Your task to perform on an android device: Add lenovo thinkpad to the cart on costco, then select checkout. Image 0: 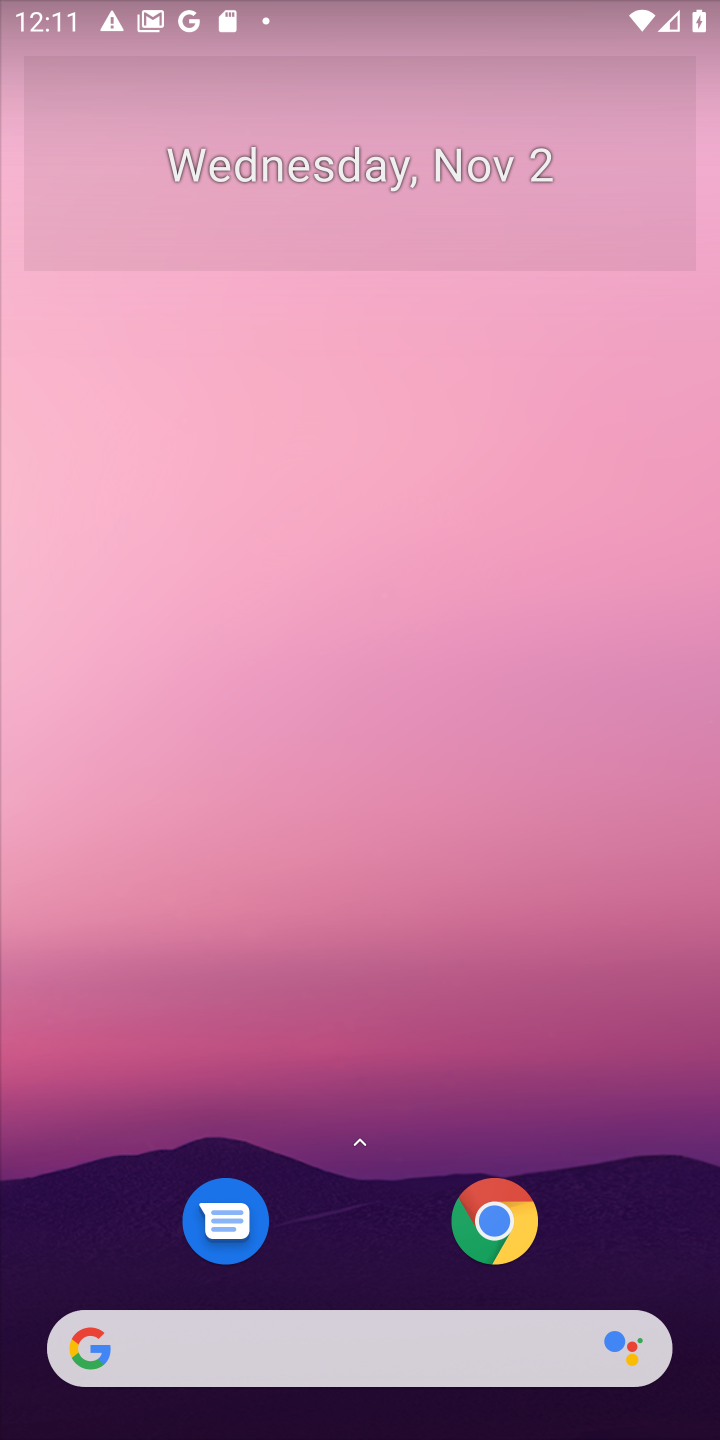
Step 0: click (285, 1332)
Your task to perform on an android device: Add lenovo thinkpad to the cart on costco, then select checkout. Image 1: 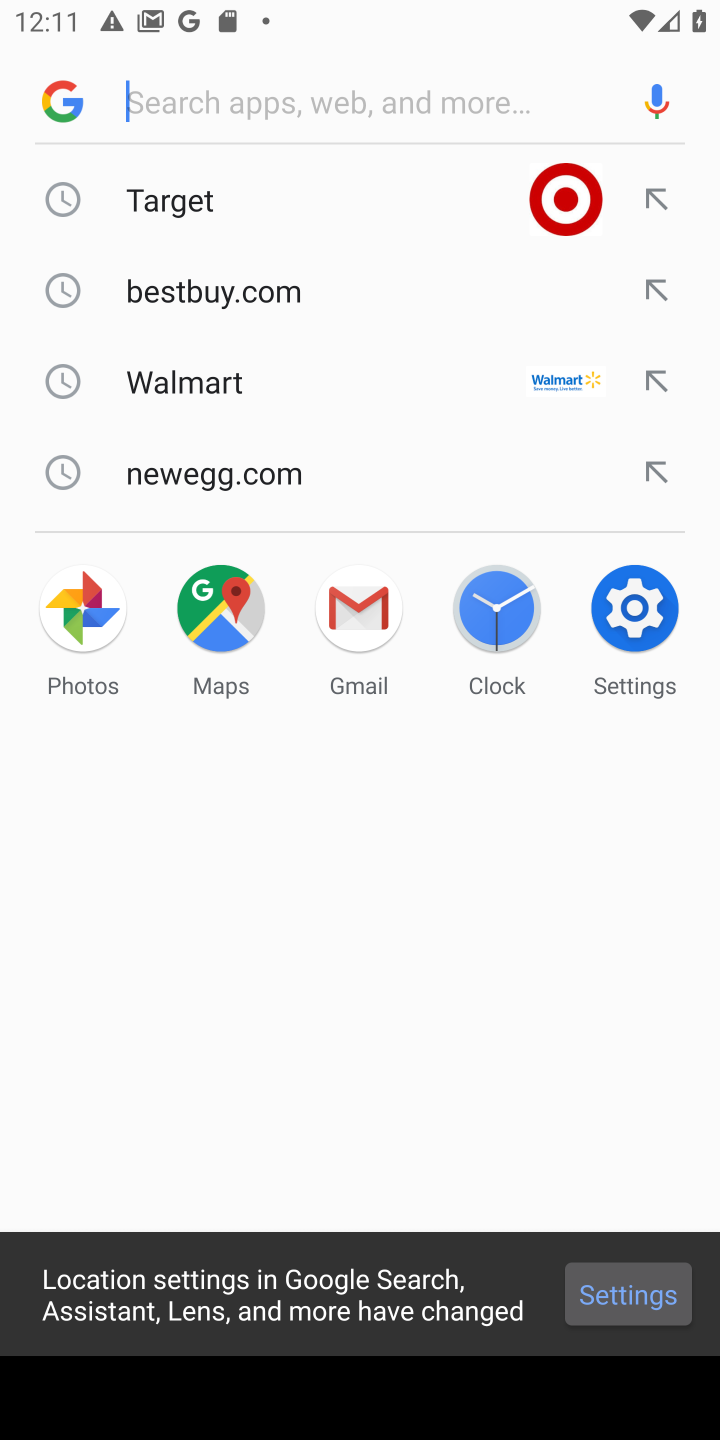
Step 1: type "costco"
Your task to perform on an android device: Add lenovo thinkpad to the cart on costco, then select checkout. Image 2: 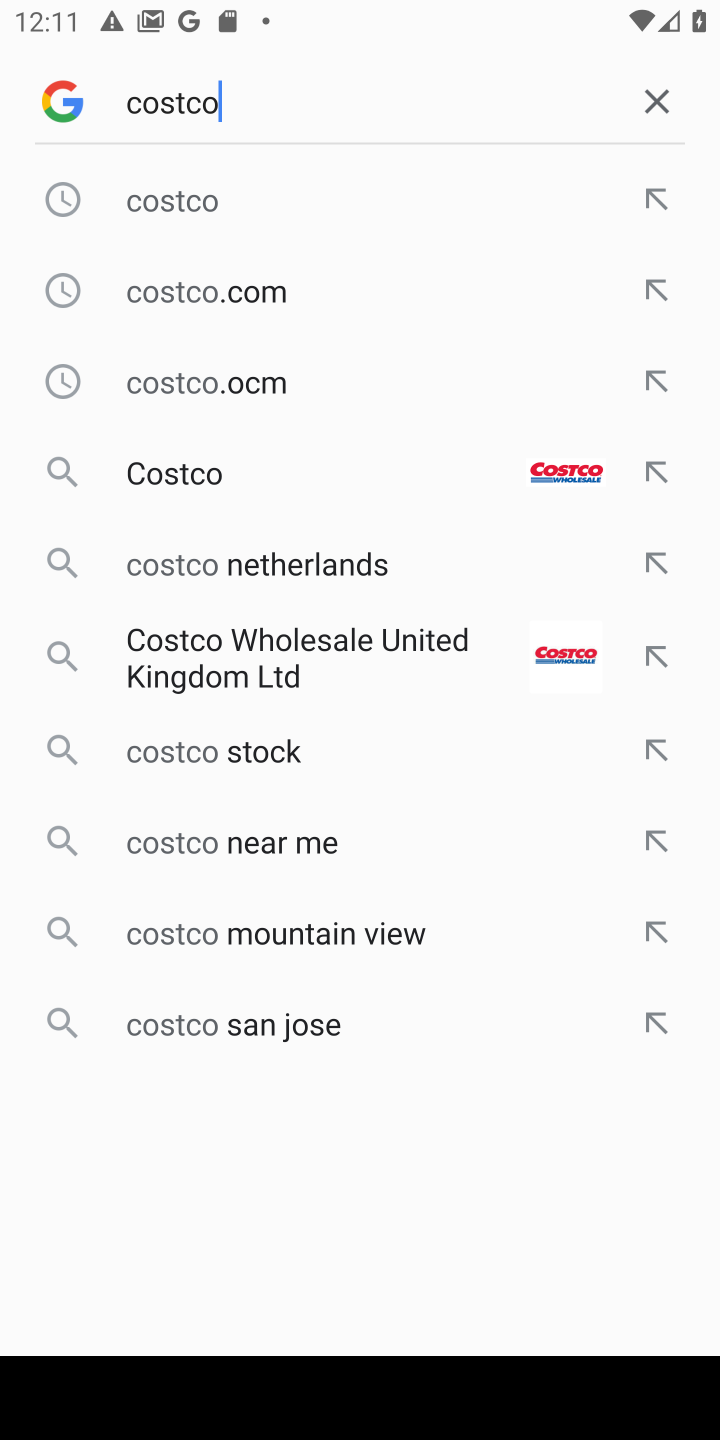
Step 2: click (290, 274)
Your task to perform on an android device: Add lenovo thinkpad to the cart on costco, then select checkout. Image 3: 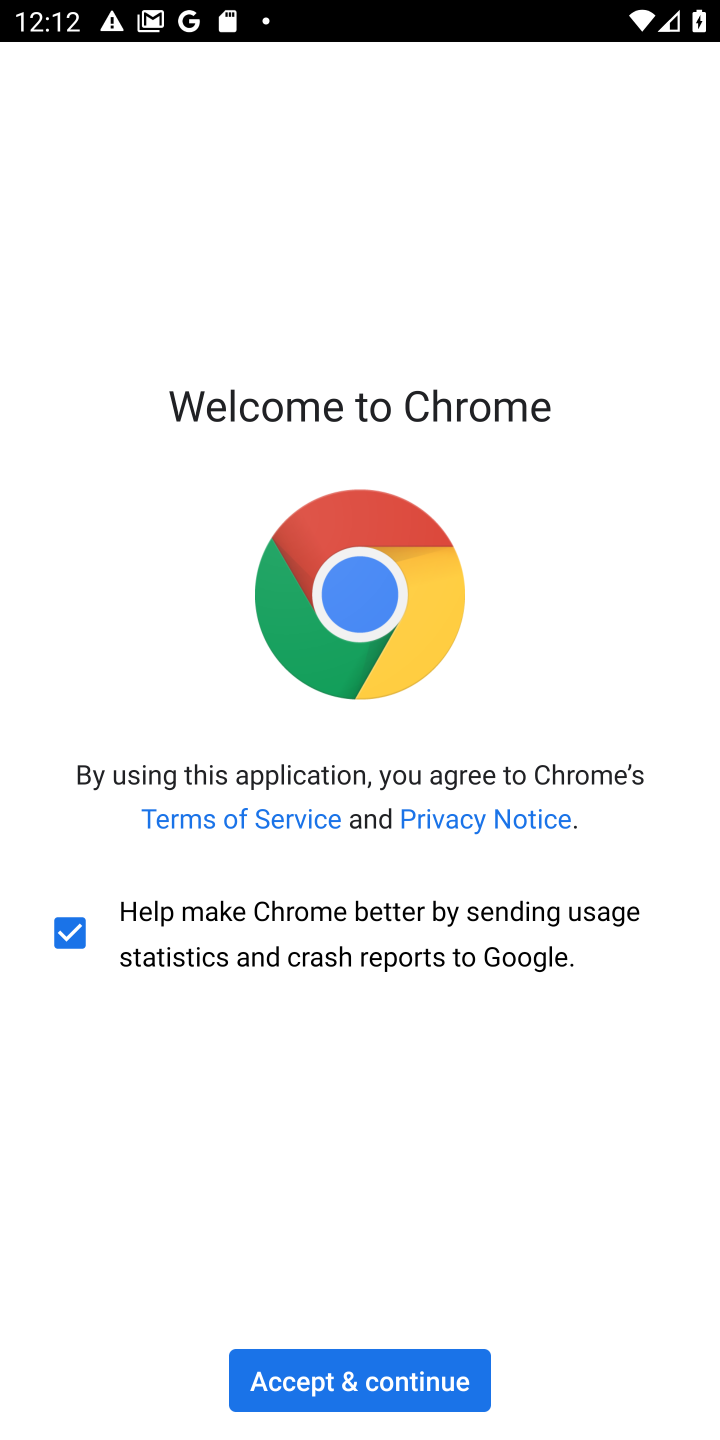
Step 3: click (441, 1373)
Your task to perform on an android device: Add lenovo thinkpad to the cart on costco, then select checkout. Image 4: 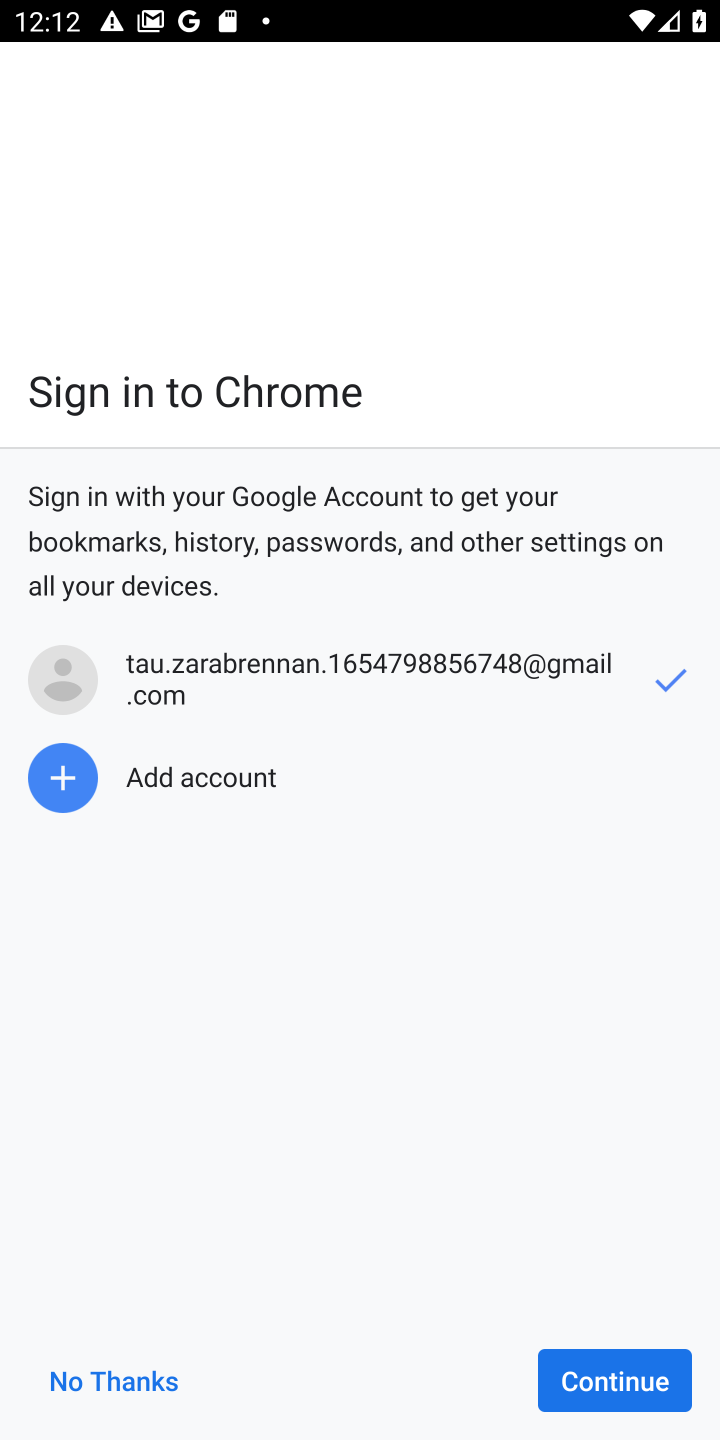
Step 4: click (568, 1376)
Your task to perform on an android device: Add lenovo thinkpad to the cart on costco, then select checkout. Image 5: 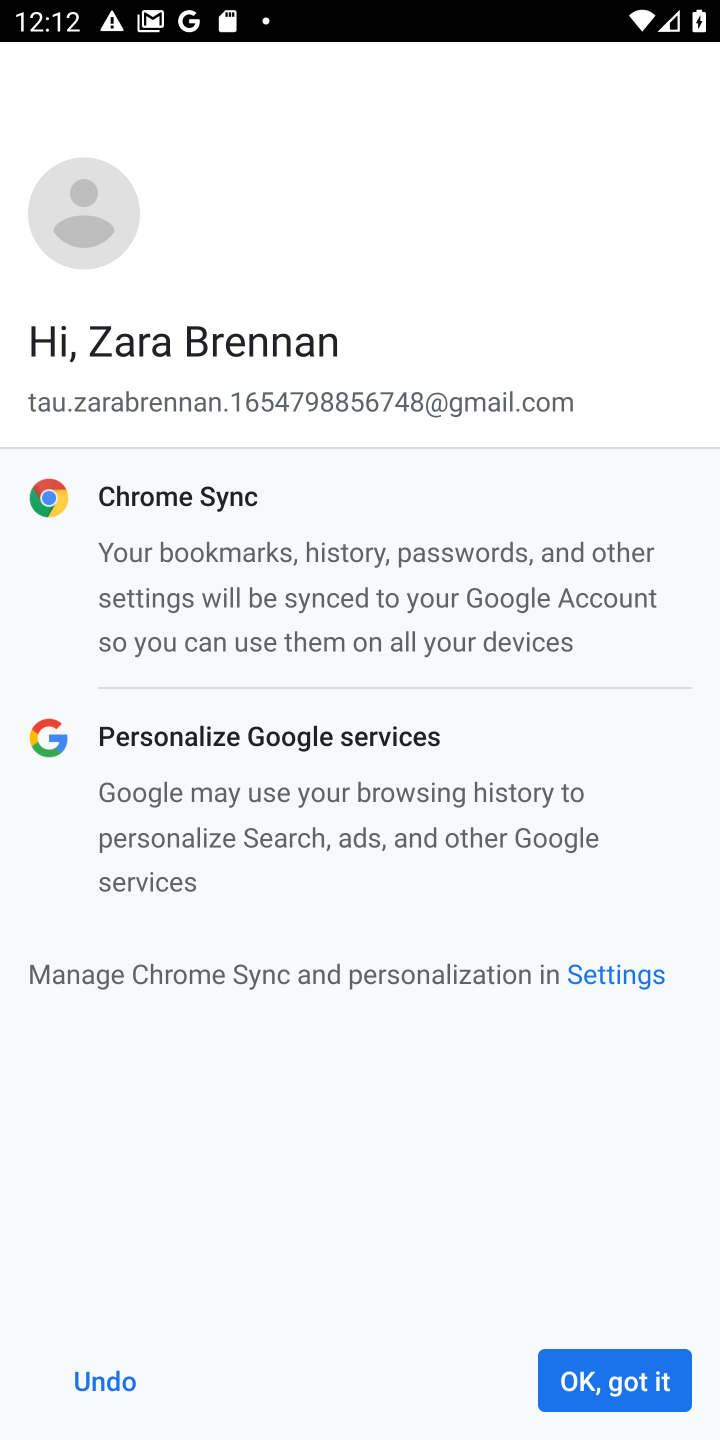
Step 5: click (642, 1390)
Your task to perform on an android device: Add lenovo thinkpad to the cart on costco, then select checkout. Image 6: 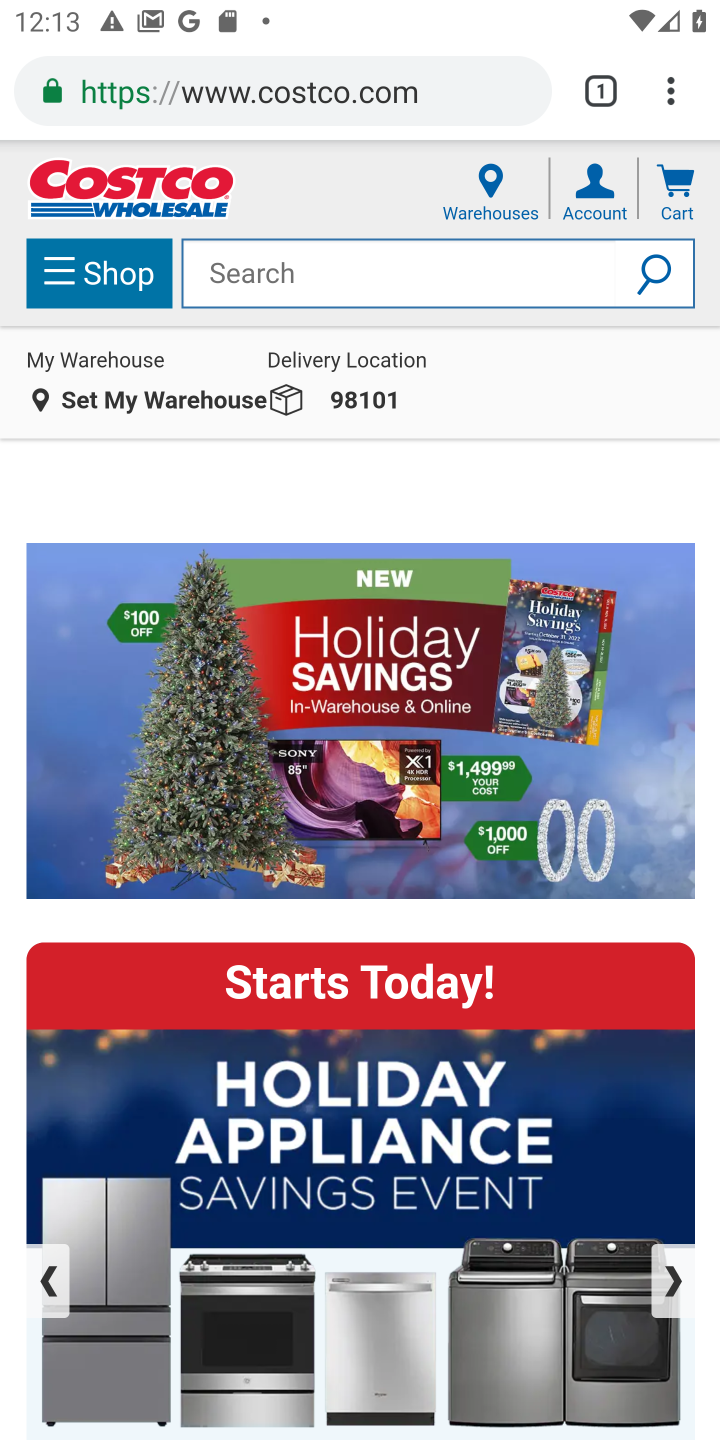
Step 6: click (356, 281)
Your task to perform on an android device: Add lenovo thinkpad to the cart on costco, then select checkout. Image 7: 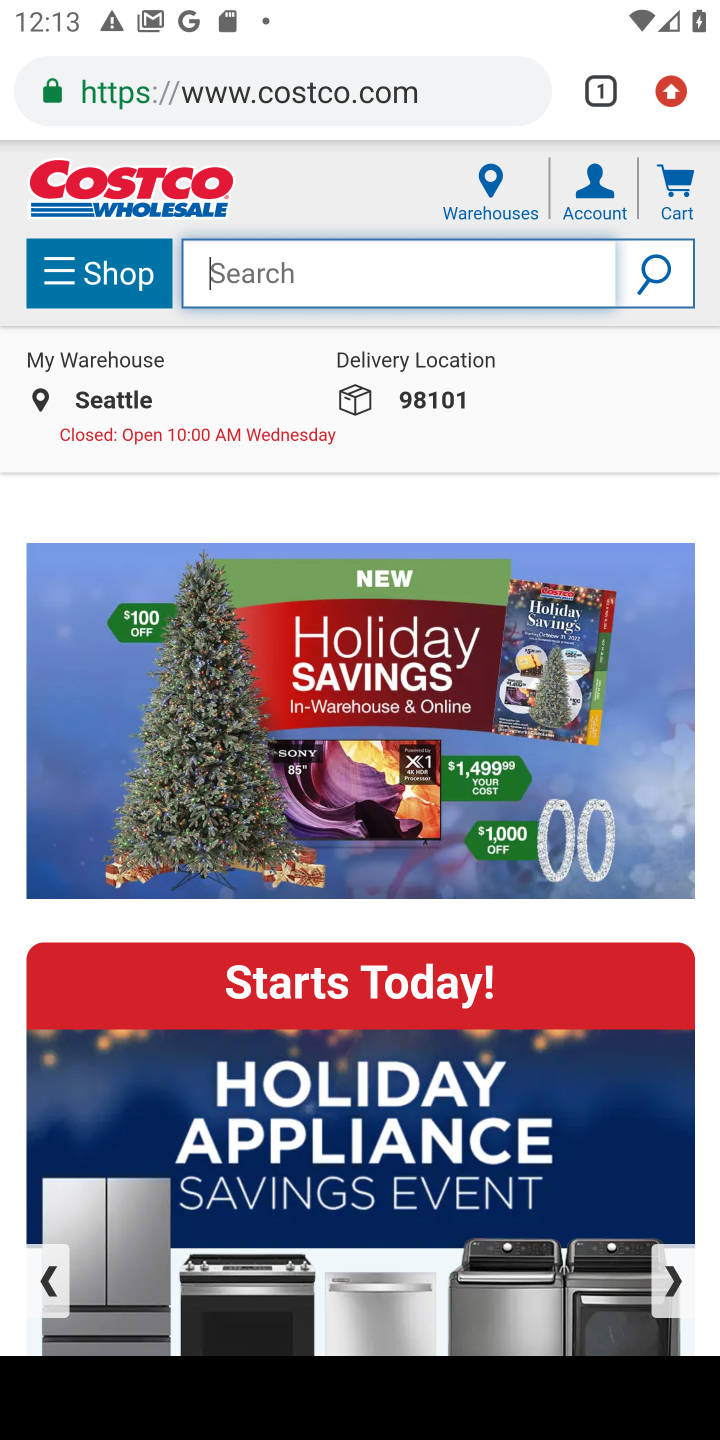
Step 7: type "lenovo think pad"
Your task to perform on an android device: Add lenovo thinkpad to the cart on costco, then select checkout. Image 8: 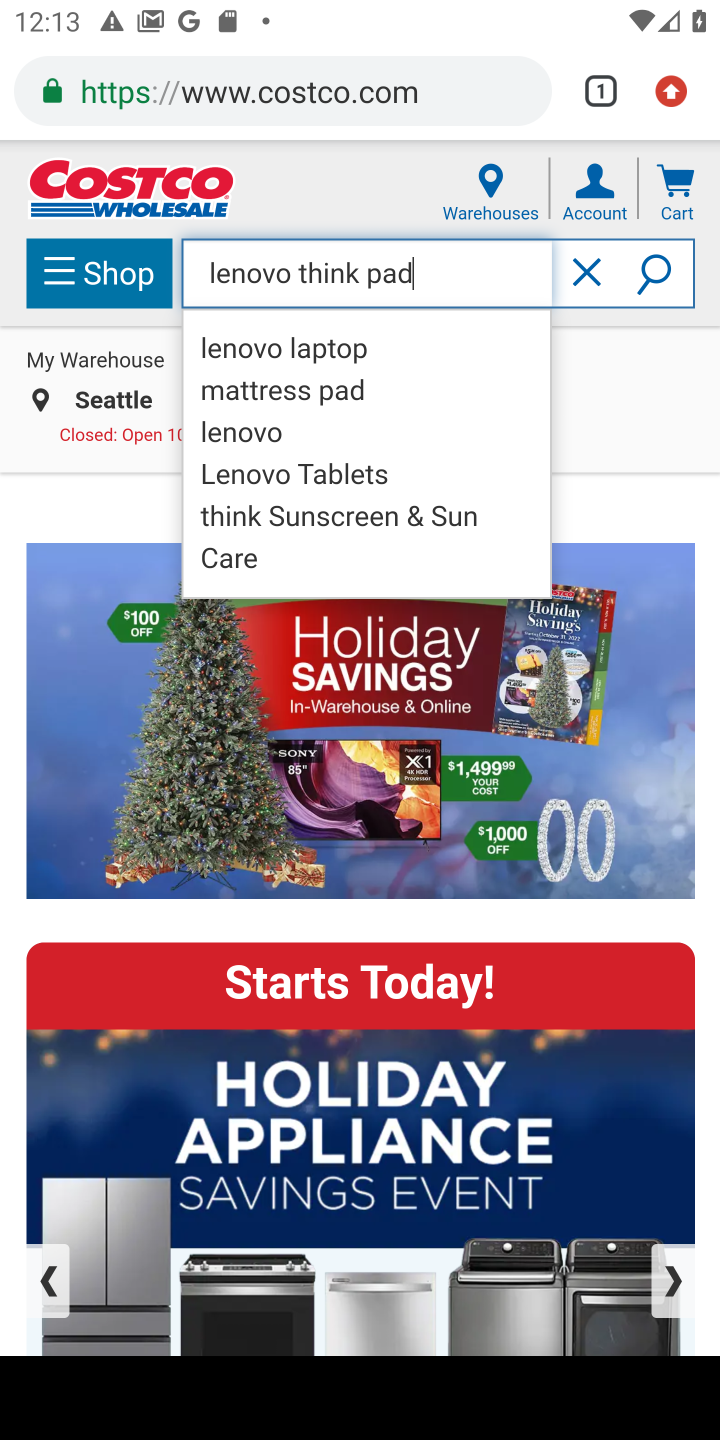
Step 8: click (681, 275)
Your task to perform on an android device: Add lenovo thinkpad to the cart on costco, then select checkout. Image 9: 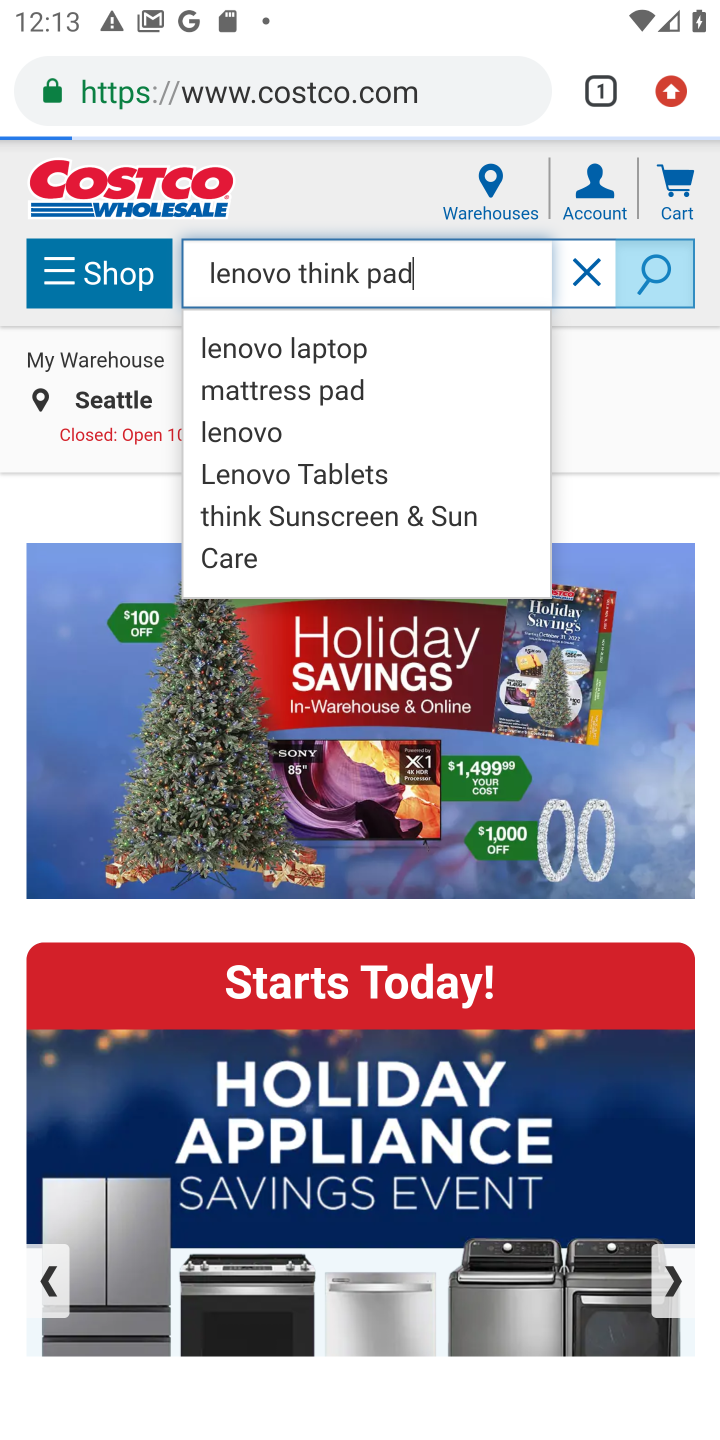
Step 9: click (418, 356)
Your task to perform on an android device: Add lenovo thinkpad to the cart on costco, then select checkout. Image 10: 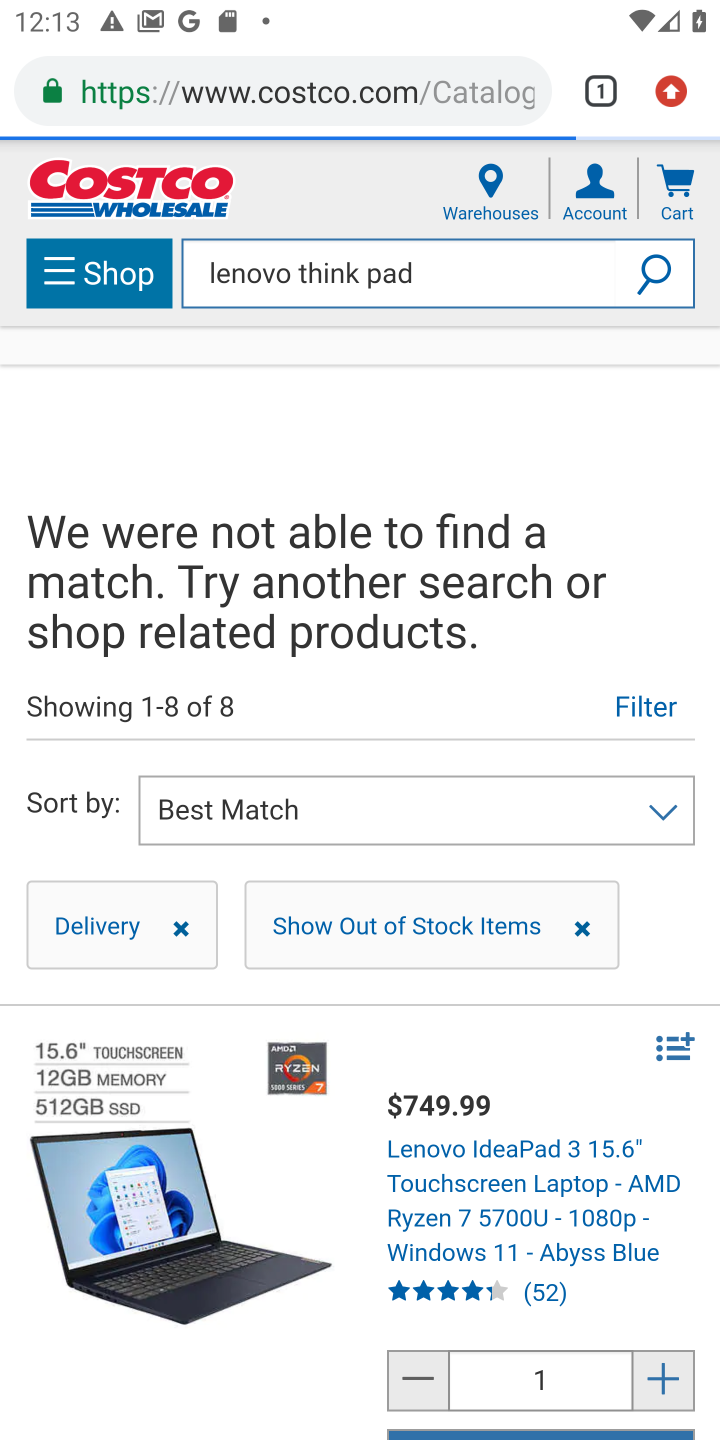
Step 10: click (660, 1434)
Your task to perform on an android device: Add lenovo thinkpad to the cart on costco, then select checkout. Image 11: 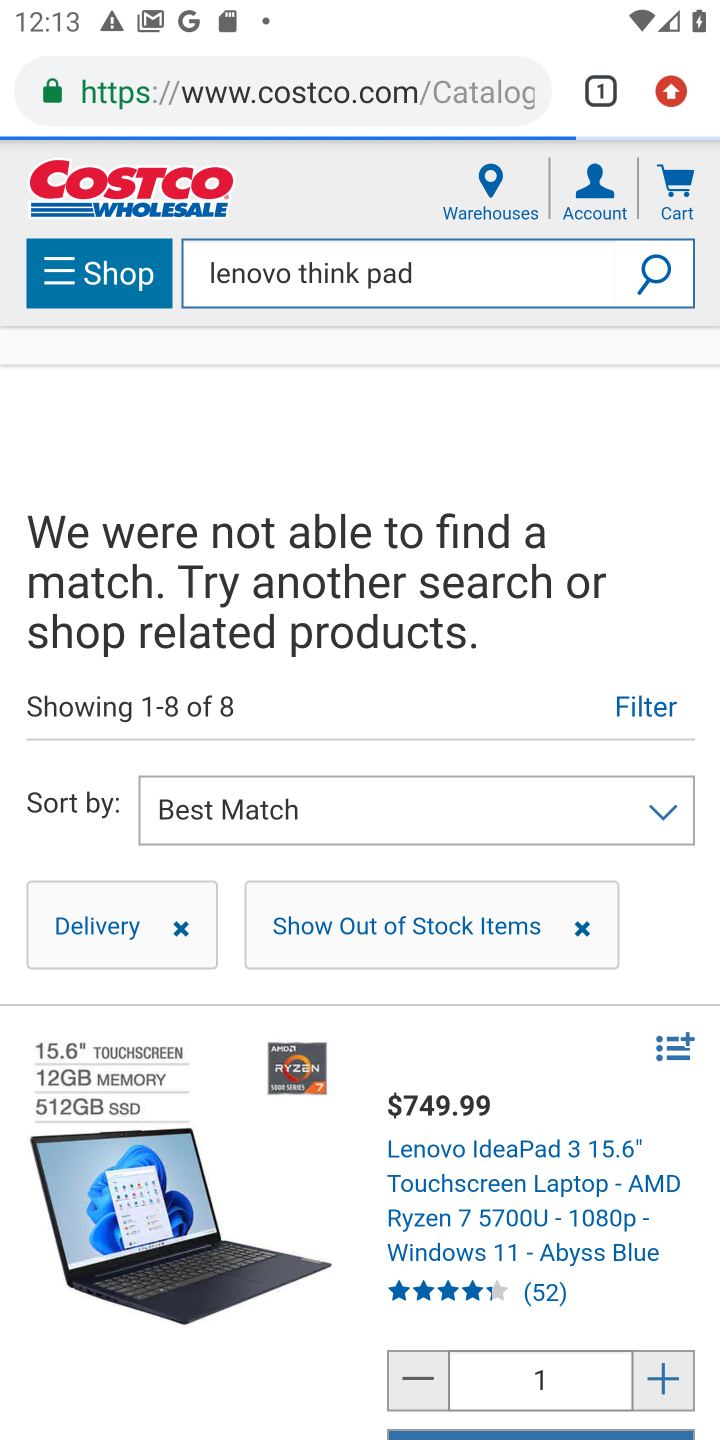
Step 11: task complete